Your task to perform on an android device: manage bookmarks in the chrome app Image 0: 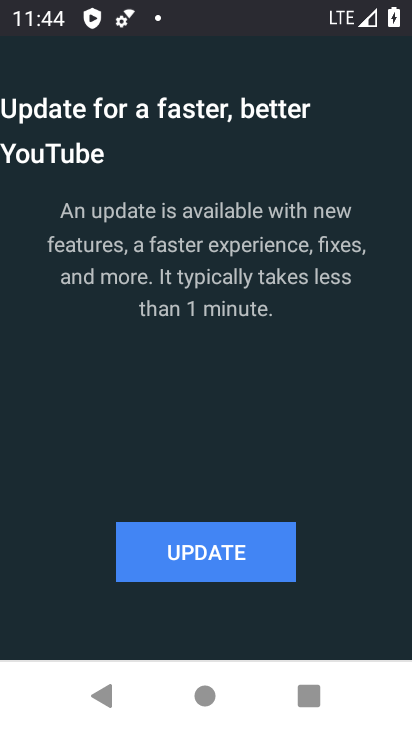
Step 0: press home button
Your task to perform on an android device: manage bookmarks in the chrome app Image 1: 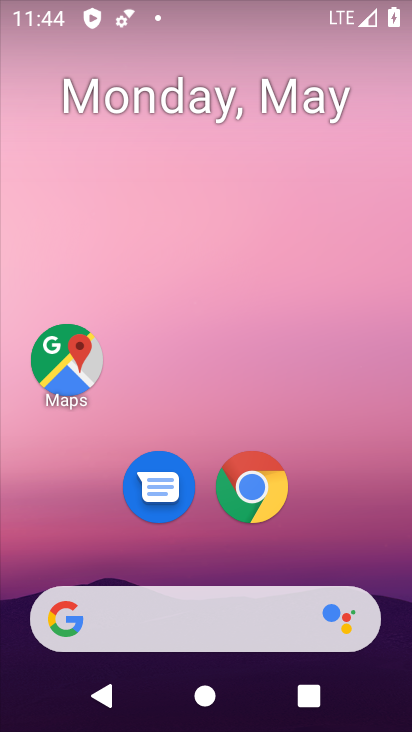
Step 1: click (239, 481)
Your task to perform on an android device: manage bookmarks in the chrome app Image 2: 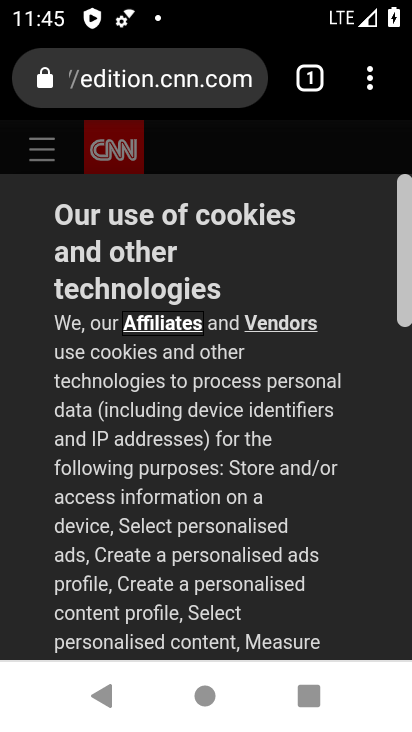
Step 2: click (370, 80)
Your task to perform on an android device: manage bookmarks in the chrome app Image 3: 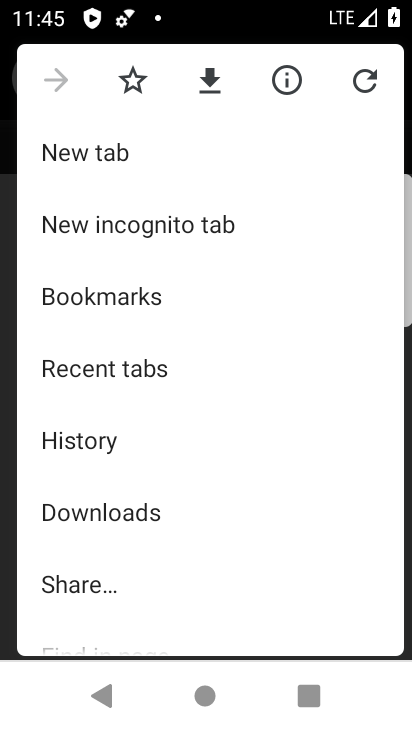
Step 3: click (93, 296)
Your task to perform on an android device: manage bookmarks in the chrome app Image 4: 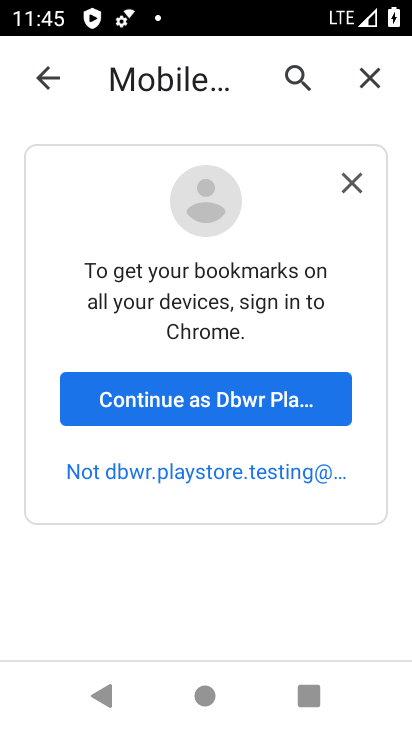
Step 4: click (334, 186)
Your task to perform on an android device: manage bookmarks in the chrome app Image 5: 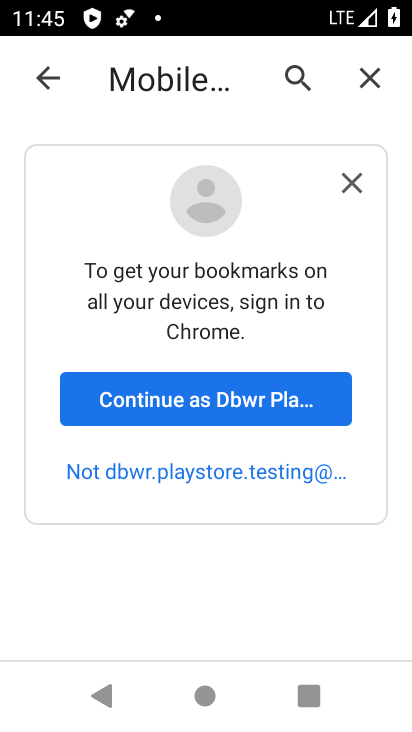
Step 5: click (351, 185)
Your task to perform on an android device: manage bookmarks in the chrome app Image 6: 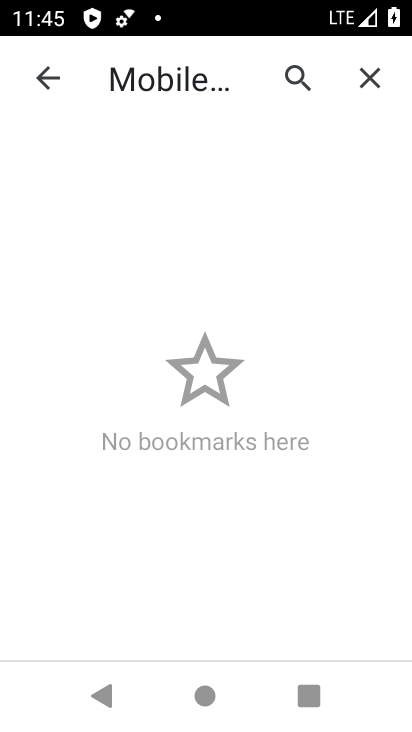
Step 6: task complete